Your task to perform on an android device: clear all cookies in the chrome app Image 0: 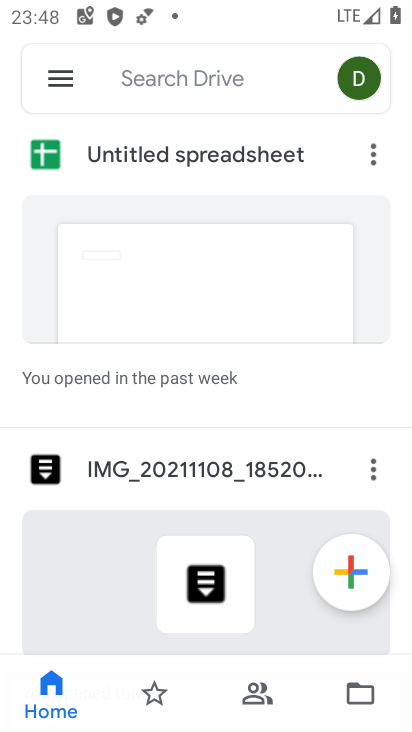
Step 0: press home button
Your task to perform on an android device: clear all cookies in the chrome app Image 1: 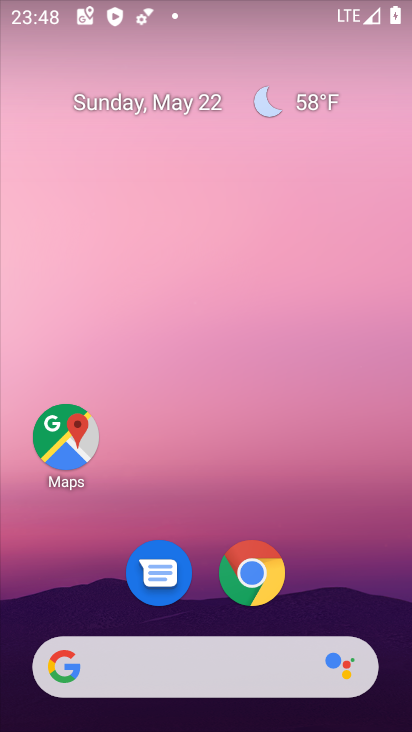
Step 1: click (258, 571)
Your task to perform on an android device: clear all cookies in the chrome app Image 2: 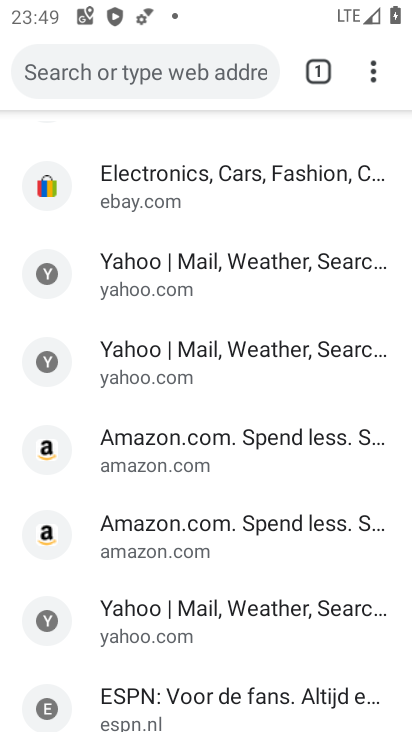
Step 2: click (378, 60)
Your task to perform on an android device: clear all cookies in the chrome app Image 3: 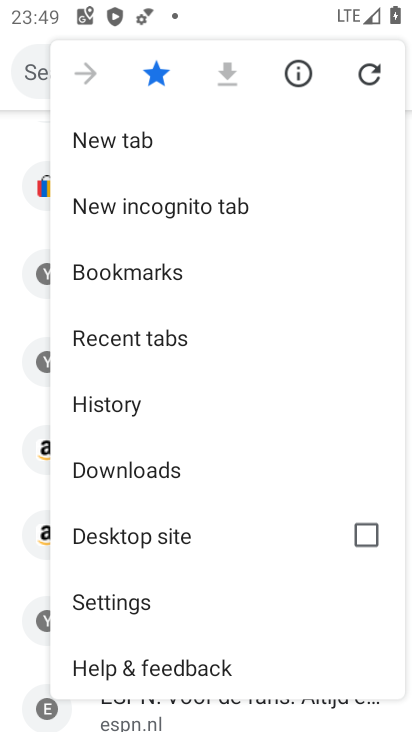
Step 3: click (109, 413)
Your task to perform on an android device: clear all cookies in the chrome app Image 4: 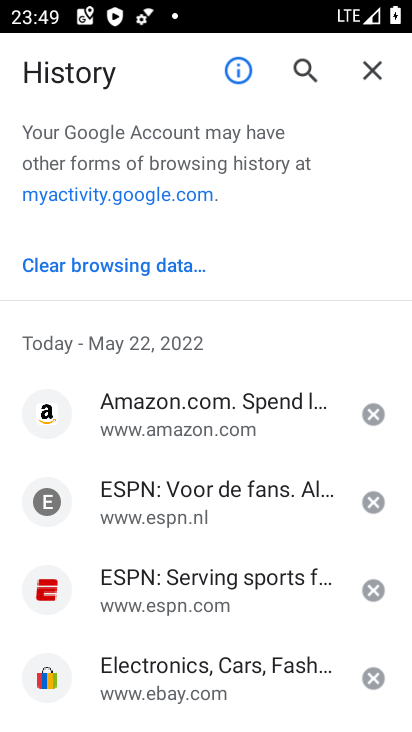
Step 4: click (174, 266)
Your task to perform on an android device: clear all cookies in the chrome app Image 5: 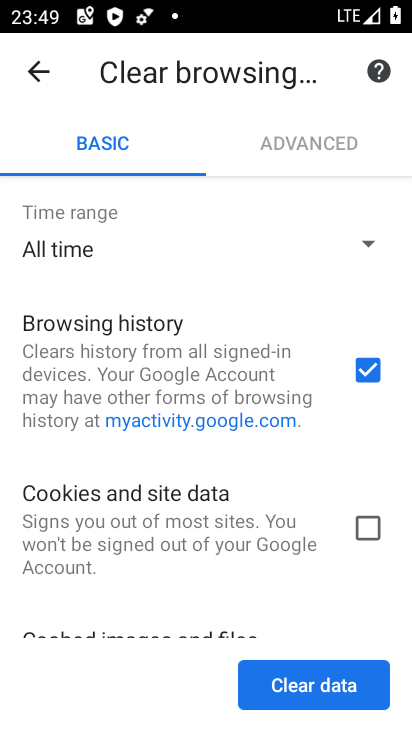
Step 5: click (371, 359)
Your task to perform on an android device: clear all cookies in the chrome app Image 6: 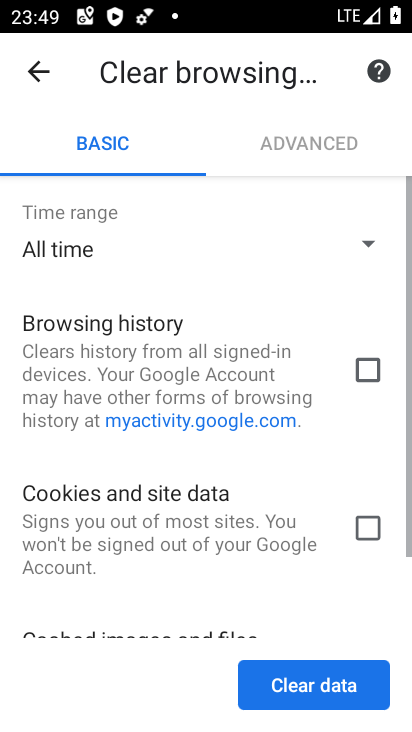
Step 6: click (358, 525)
Your task to perform on an android device: clear all cookies in the chrome app Image 7: 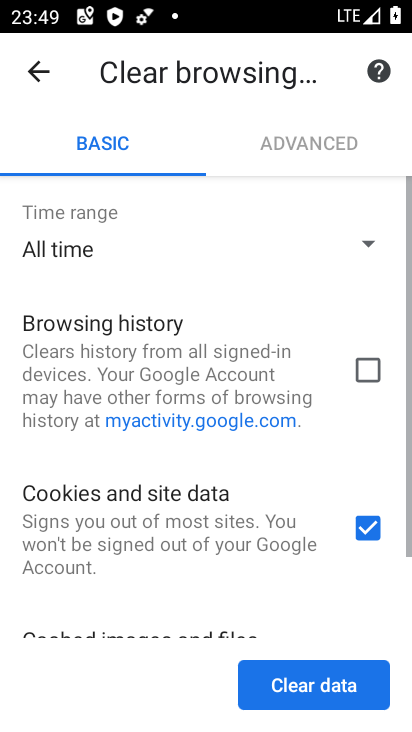
Step 7: drag from (245, 510) to (277, 83)
Your task to perform on an android device: clear all cookies in the chrome app Image 8: 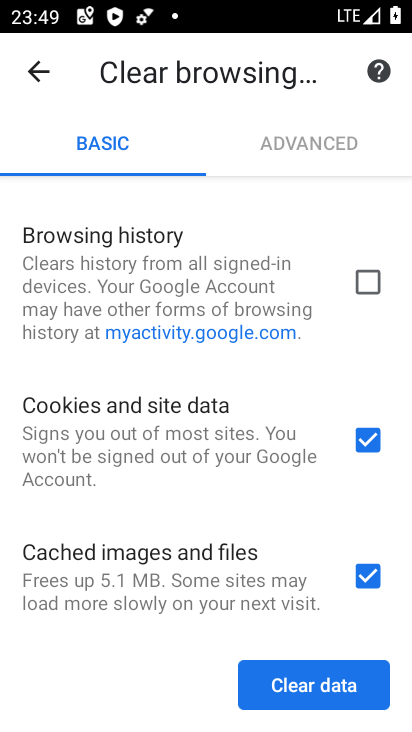
Step 8: click (371, 576)
Your task to perform on an android device: clear all cookies in the chrome app Image 9: 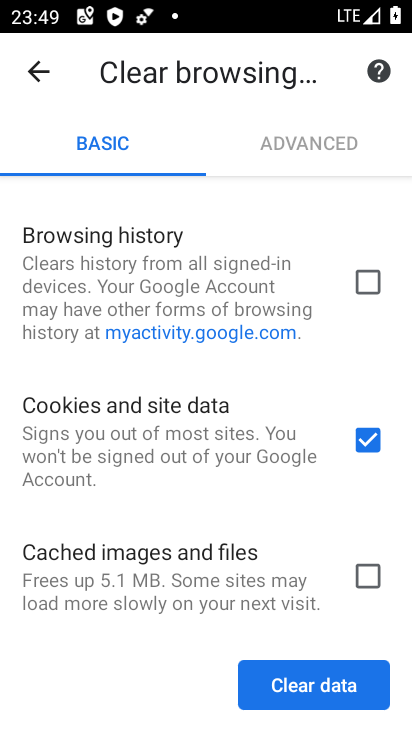
Step 9: click (331, 673)
Your task to perform on an android device: clear all cookies in the chrome app Image 10: 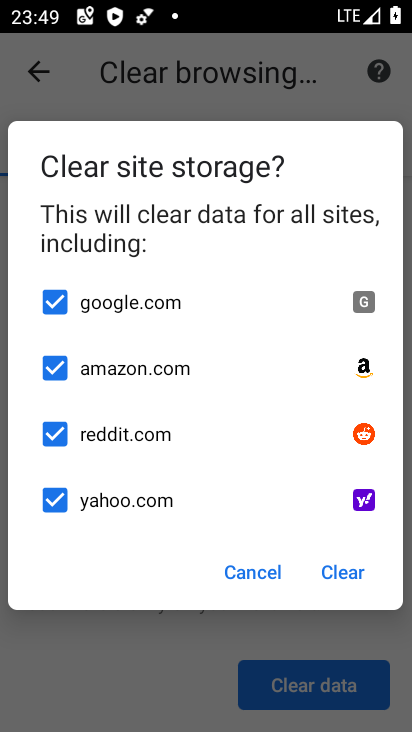
Step 10: click (352, 565)
Your task to perform on an android device: clear all cookies in the chrome app Image 11: 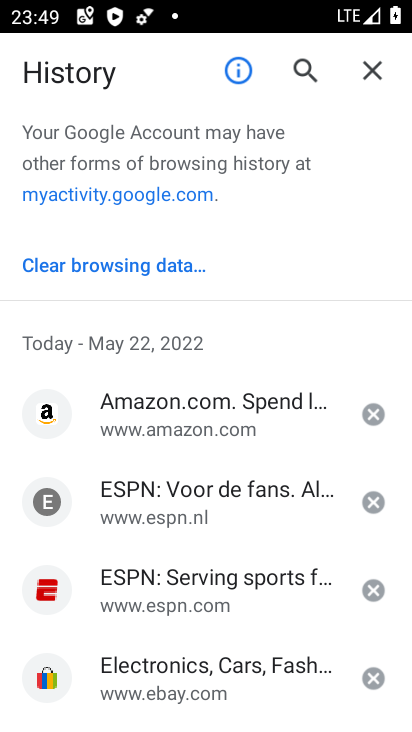
Step 11: task complete